Your task to perform on an android device: turn on sleep mode Image 0: 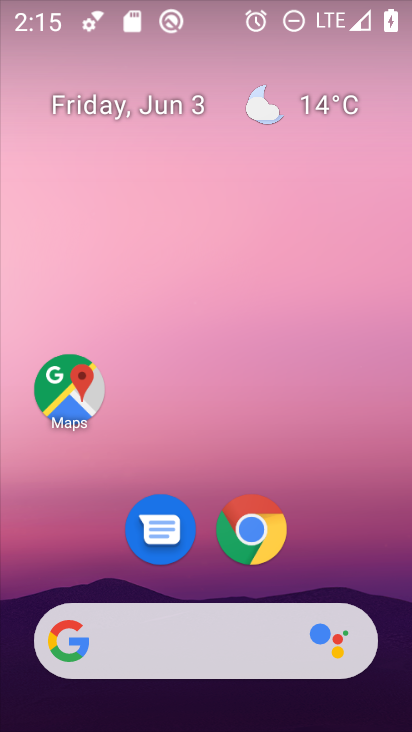
Step 0: drag from (391, 585) to (359, 254)
Your task to perform on an android device: turn on sleep mode Image 1: 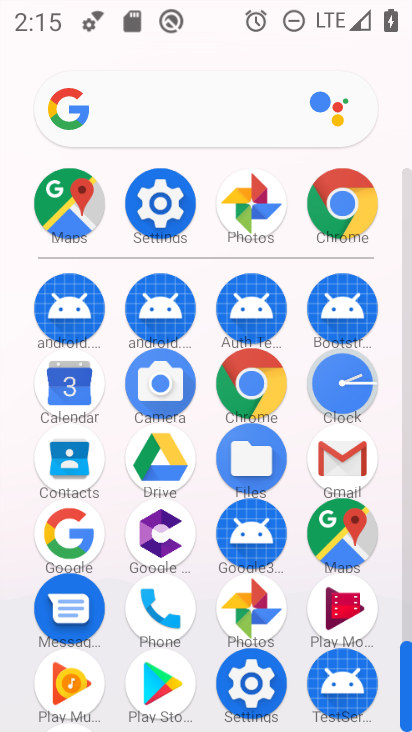
Step 1: click (273, 675)
Your task to perform on an android device: turn on sleep mode Image 2: 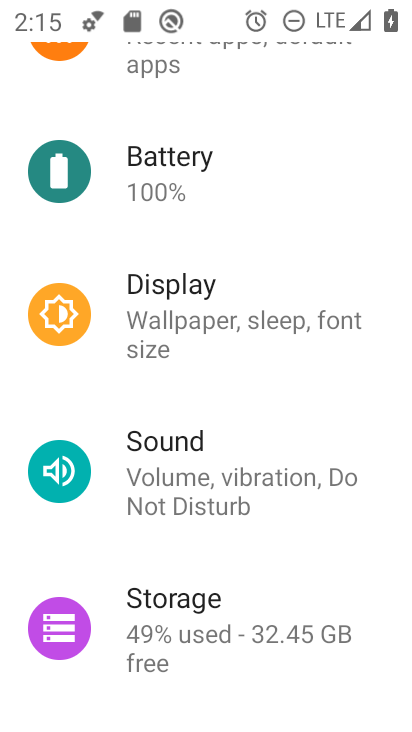
Step 2: drag from (373, 284) to (377, 365)
Your task to perform on an android device: turn on sleep mode Image 3: 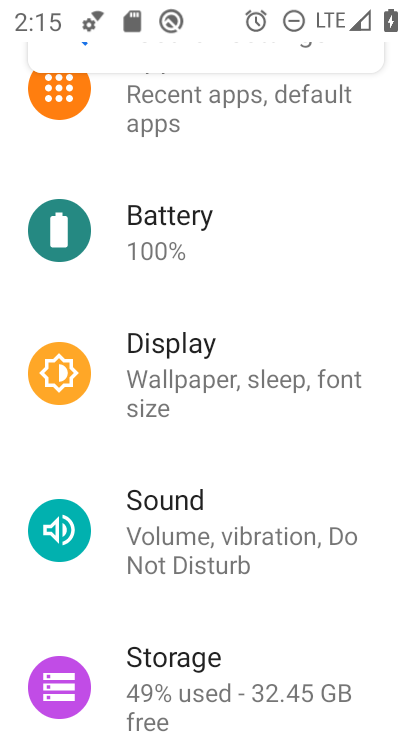
Step 3: drag from (371, 243) to (375, 373)
Your task to perform on an android device: turn on sleep mode Image 4: 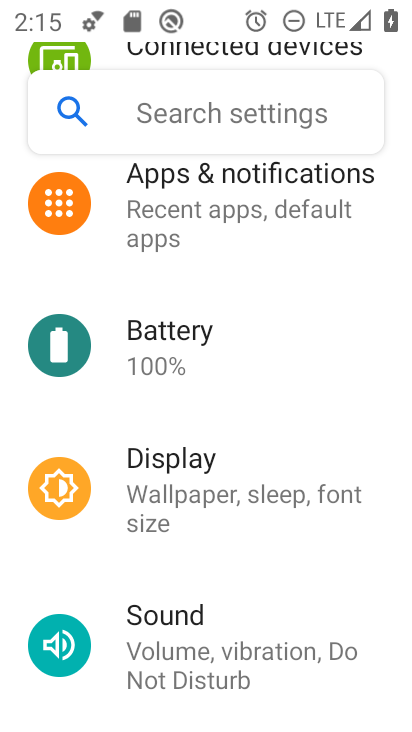
Step 4: drag from (376, 240) to (369, 371)
Your task to perform on an android device: turn on sleep mode Image 5: 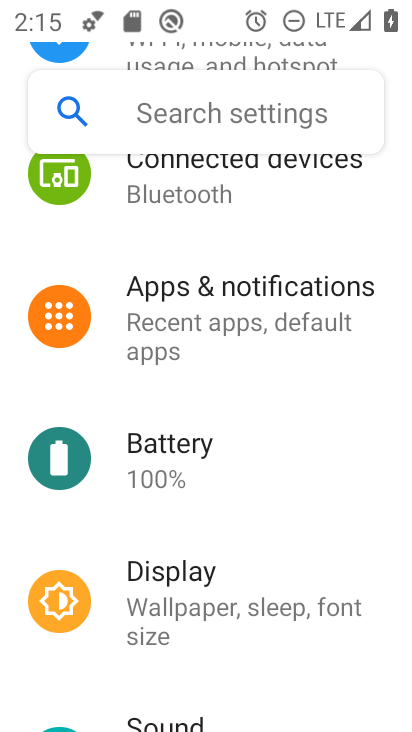
Step 5: drag from (357, 237) to (347, 364)
Your task to perform on an android device: turn on sleep mode Image 6: 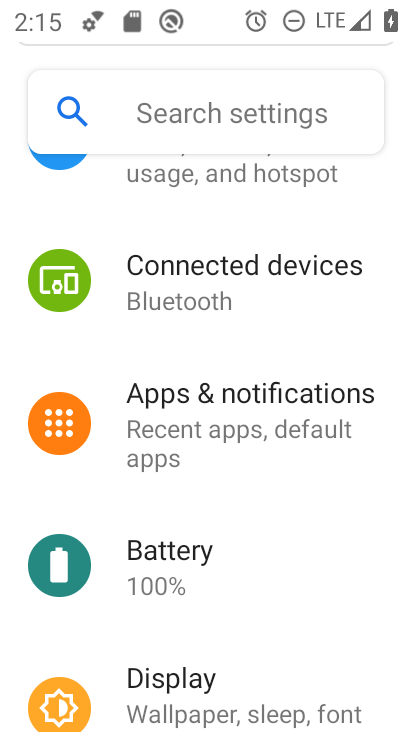
Step 6: drag from (360, 217) to (358, 394)
Your task to perform on an android device: turn on sleep mode Image 7: 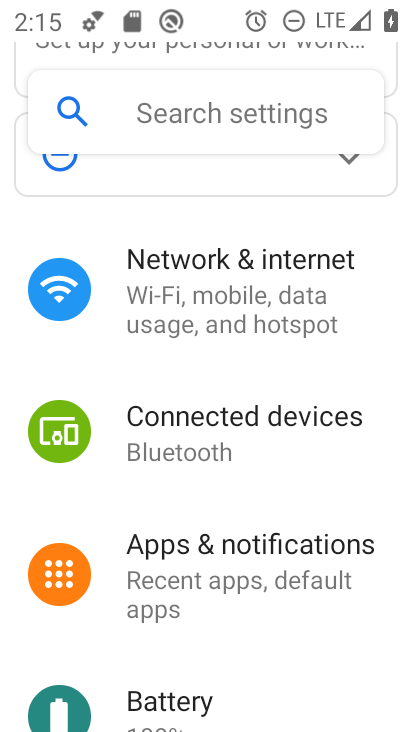
Step 7: drag from (368, 230) to (365, 440)
Your task to perform on an android device: turn on sleep mode Image 8: 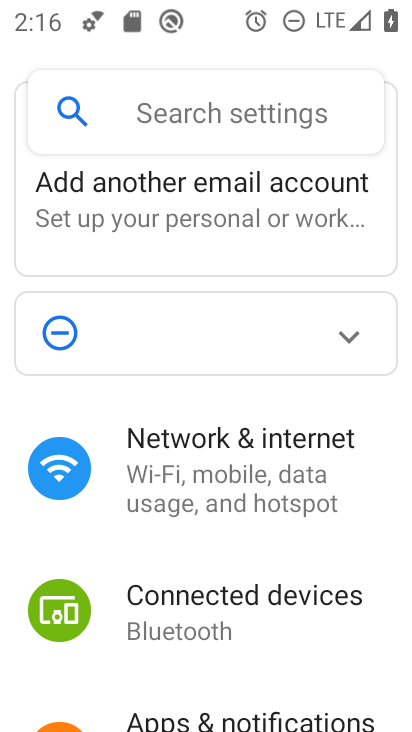
Step 8: drag from (368, 468) to (395, 319)
Your task to perform on an android device: turn on sleep mode Image 9: 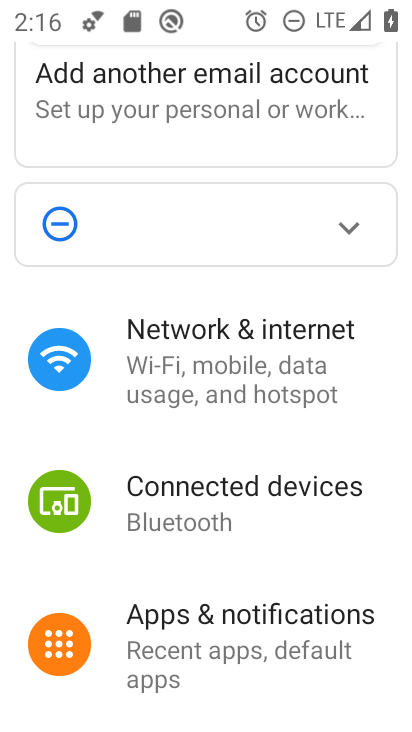
Step 9: drag from (372, 471) to (356, 338)
Your task to perform on an android device: turn on sleep mode Image 10: 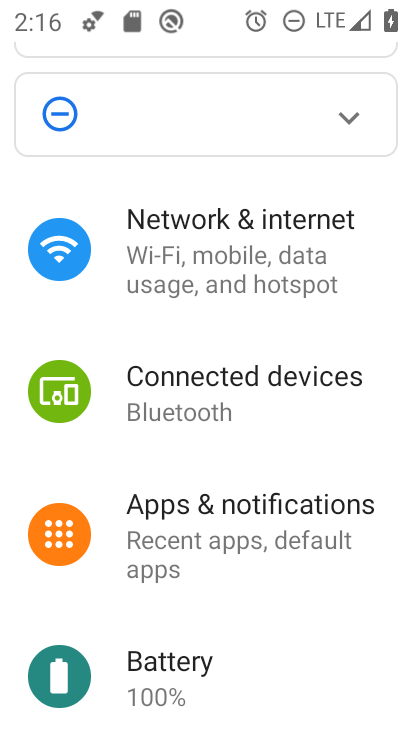
Step 10: drag from (342, 456) to (338, 305)
Your task to perform on an android device: turn on sleep mode Image 11: 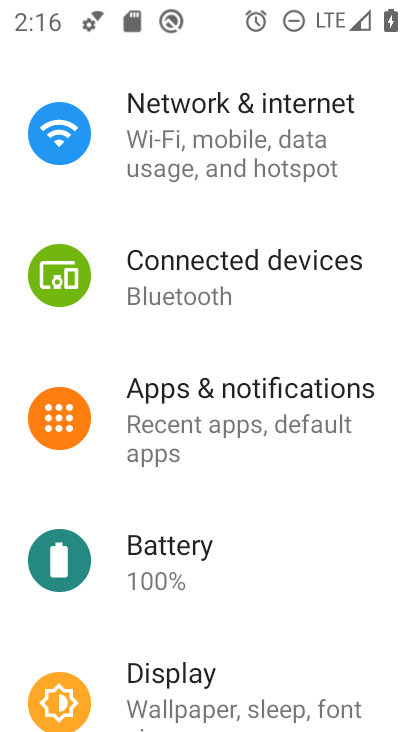
Step 11: drag from (330, 506) to (350, 334)
Your task to perform on an android device: turn on sleep mode Image 12: 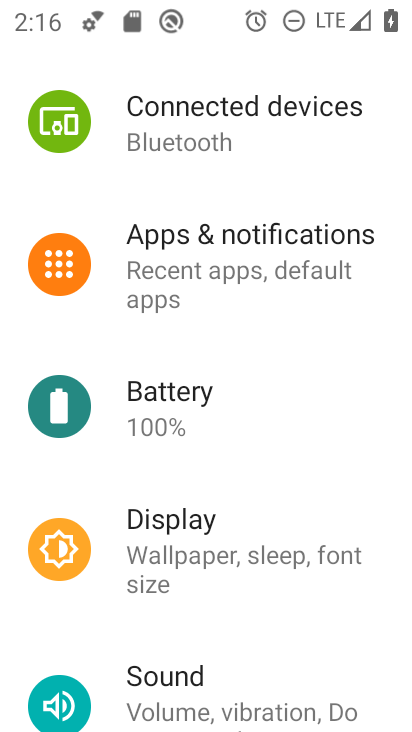
Step 12: drag from (356, 581) to (359, 353)
Your task to perform on an android device: turn on sleep mode Image 13: 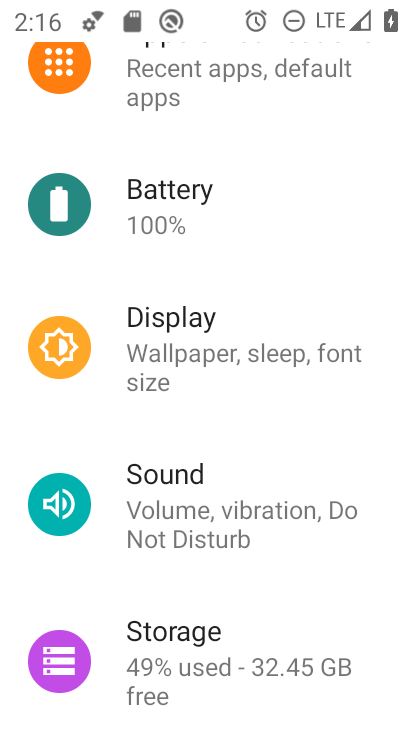
Step 13: click (292, 355)
Your task to perform on an android device: turn on sleep mode Image 14: 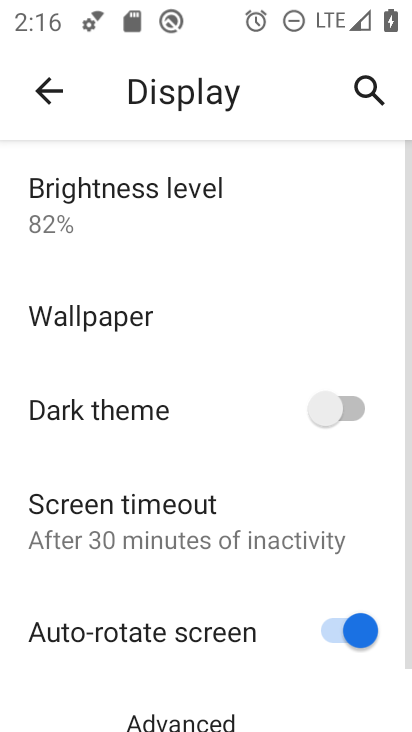
Step 14: drag from (279, 478) to (287, 338)
Your task to perform on an android device: turn on sleep mode Image 15: 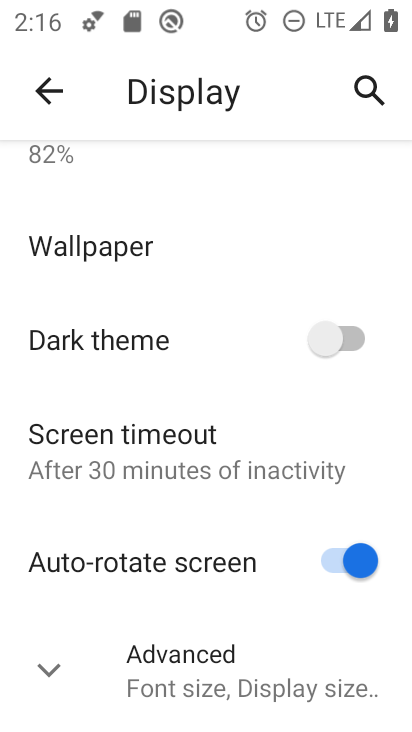
Step 15: click (258, 664)
Your task to perform on an android device: turn on sleep mode Image 16: 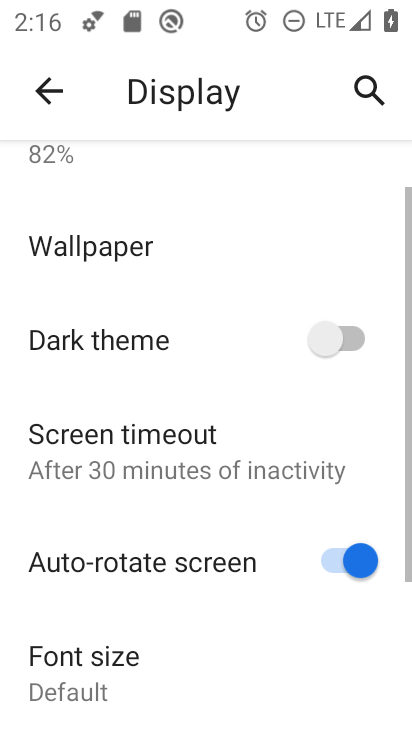
Step 16: task complete